Your task to perform on an android device: Open CNN.com Image 0: 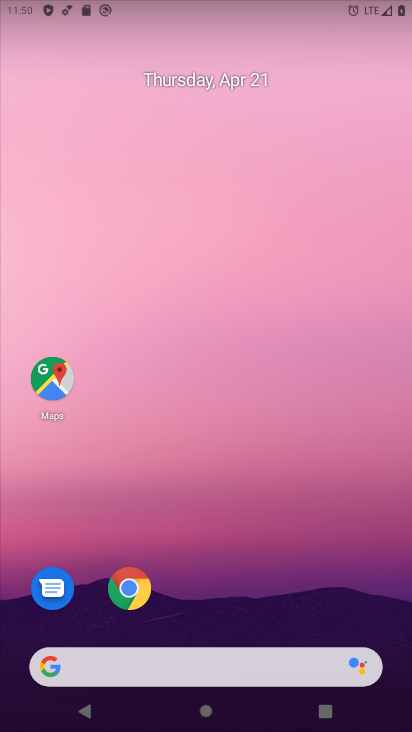
Step 0: drag from (249, 680) to (293, 157)
Your task to perform on an android device: Open CNN.com Image 1: 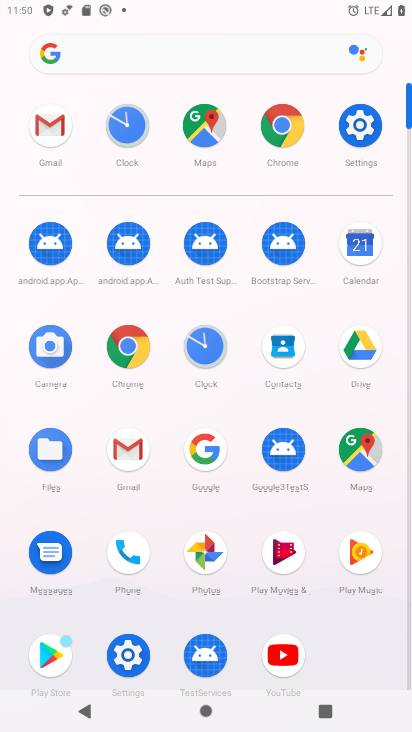
Step 1: click (297, 124)
Your task to perform on an android device: Open CNN.com Image 2: 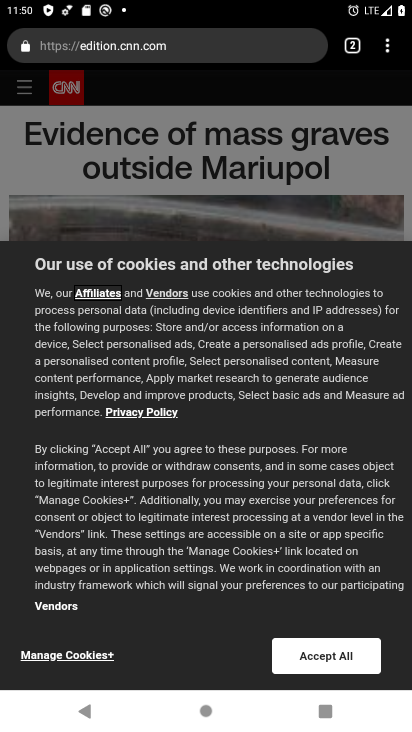
Step 2: click (359, 55)
Your task to perform on an android device: Open CNN.com Image 3: 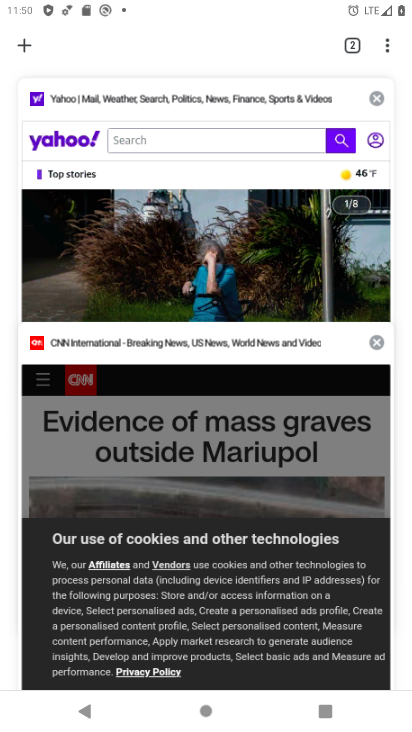
Step 3: click (20, 46)
Your task to perform on an android device: Open CNN.com Image 4: 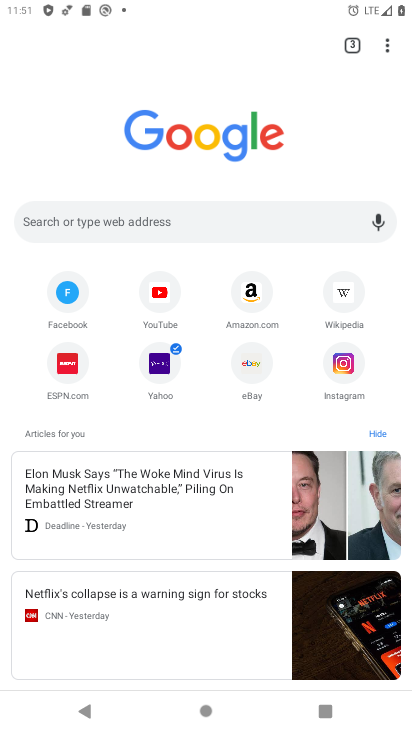
Step 4: click (129, 226)
Your task to perform on an android device: Open CNN.com Image 5: 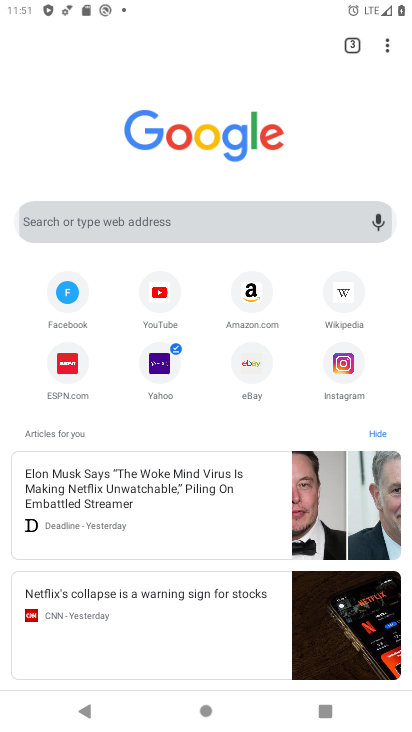
Step 5: click (123, 223)
Your task to perform on an android device: Open CNN.com Image 6: 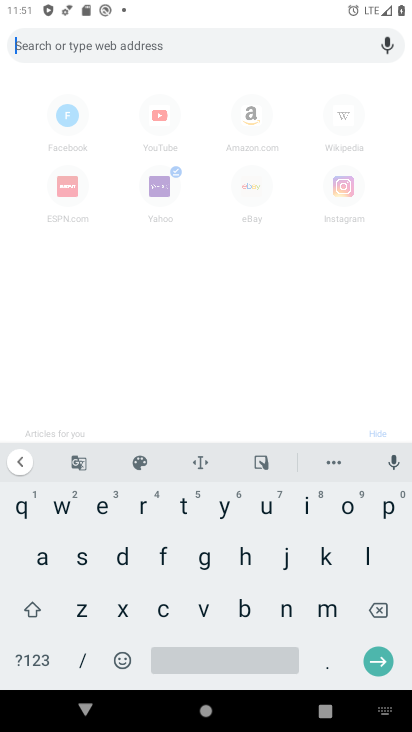
Step 6: click (161, 616)
Your task to perform on an android device: Open CNN.com Image 7: 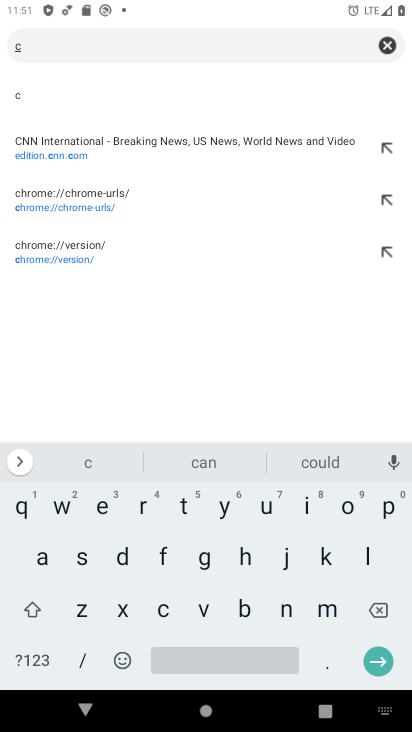
Step 7: click (281, 610)
Your task to perform on an android device: Open CNN.com Image 8: 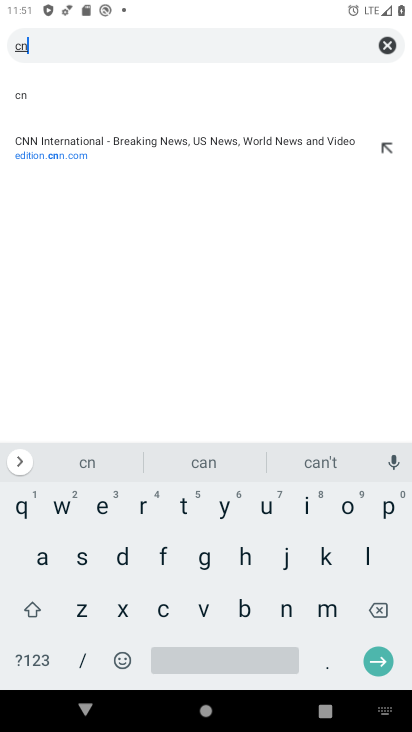
Step 8: click (281, 610)
Your task to perform on an android device: Open CNN.com Image 9: 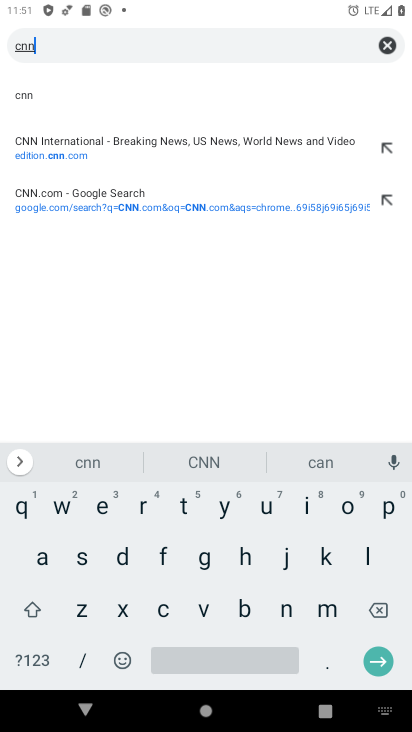
Step 9: click (27, 150)
Your task to perform on an android device: Open CNN.com Image 10: 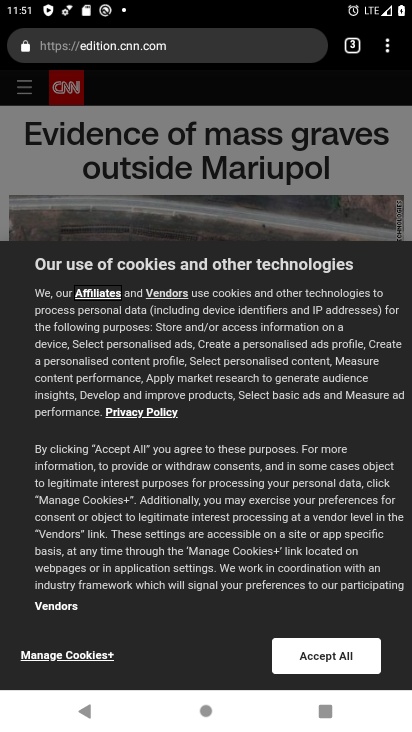
Step 10: click (315, 662)
Your task to perform on an android device: Open CNN.com Image 11: 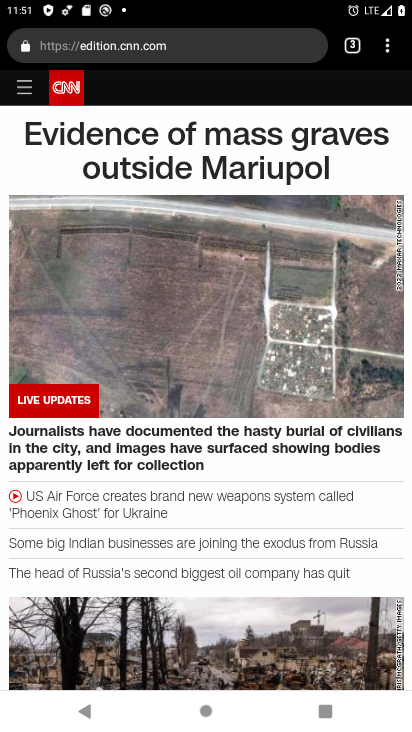
Step 11: task complete